Your task to perform on an android device: Search for seafood restaurants on Google Maps Image 0: 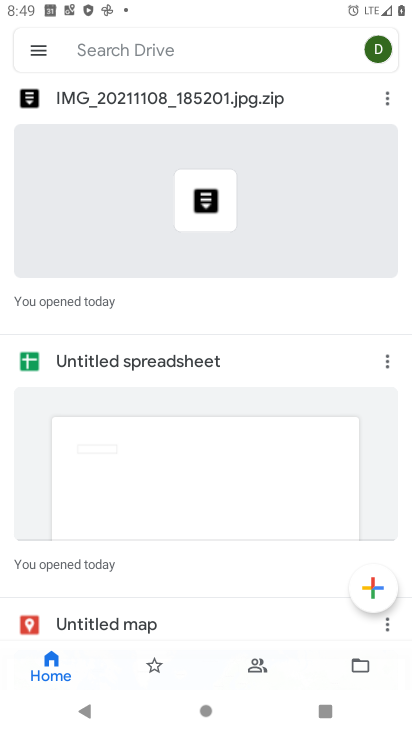
Step 0: press home button
Your task to perform on an android device: Search for seafood restaurants on Google Maps Image 1: 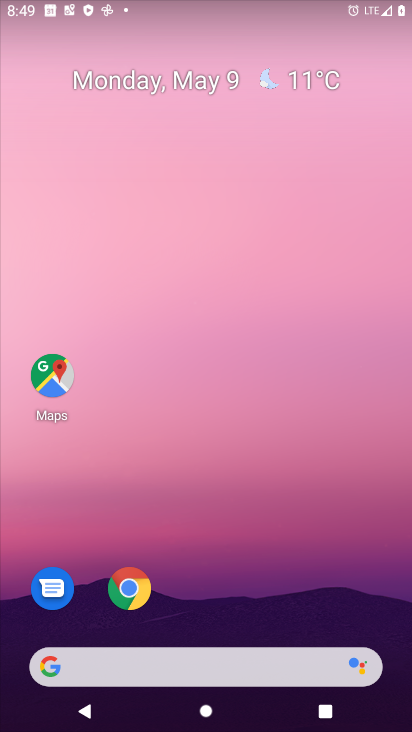
Step 1: drag from (342, 615) to (274, 108)
Your task to perform on an android device: Search for seafood restaurants on Google Maps Image 2: 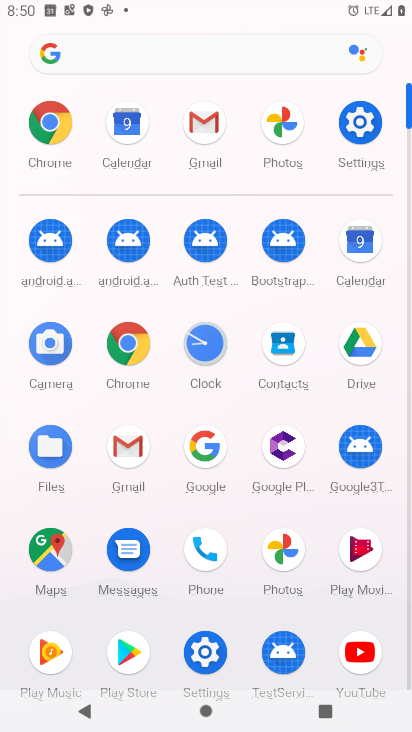
Step 2: click (69, 544)
Your task to perform on an android device: Search for seafood restaurants on Google Maps Image 3: 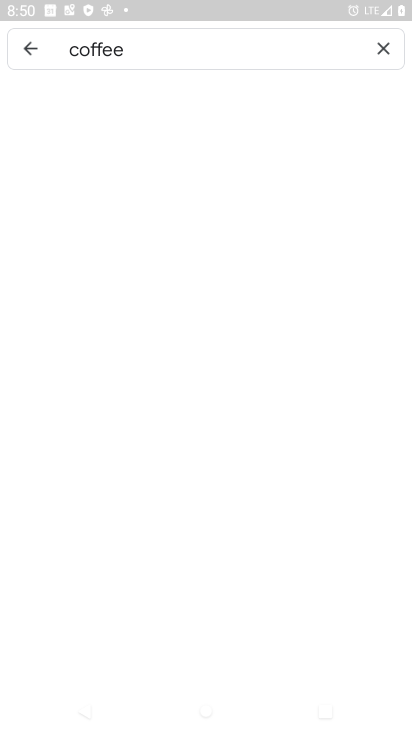
Step 3: click (384, 48)
Your task to perform on an android device: Search for seafood restaurants on Google Maps Image 4: 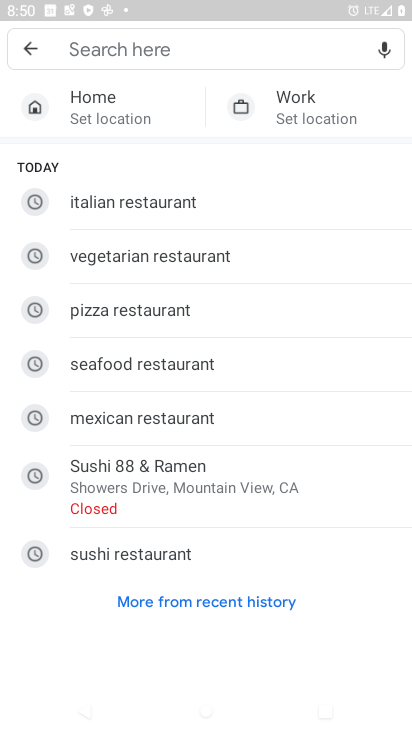
Step 4: click (175, 364)
Your task to perform on an android device: Search for seafood restaurants on Google Maps Image 5: 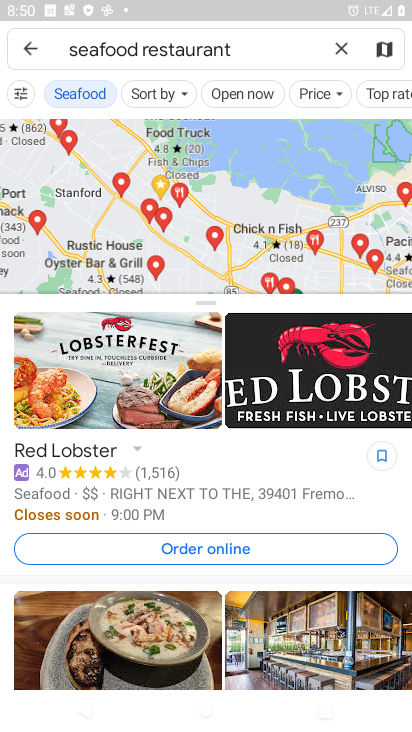
Step 5: task complete